Your task to perform on an android device: Open Chrome and go to settings Image 0: 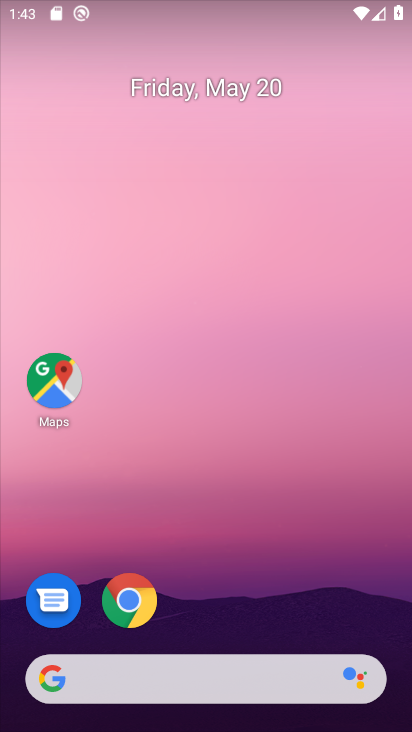
Step 0: click (146, 601)
Your task to perform on an android device: Open Chrome and go to settings Image 1: 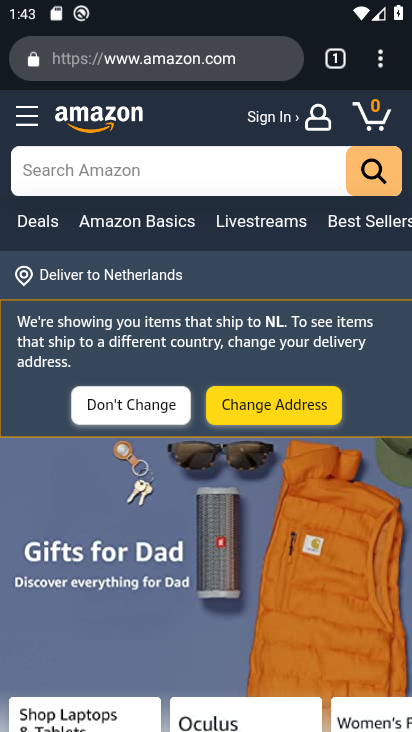
Step 1: click (374, 65)
Your task to perform on an android device: Open Chrome and go to settings Image 2: 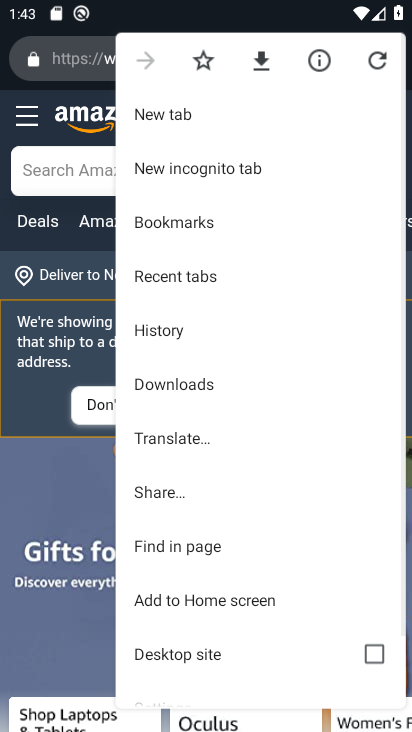
Step 2: drag from (208, 632) to (212, 374)
Your task to perform on an android device: Open Chrome and go to settings Image 3: 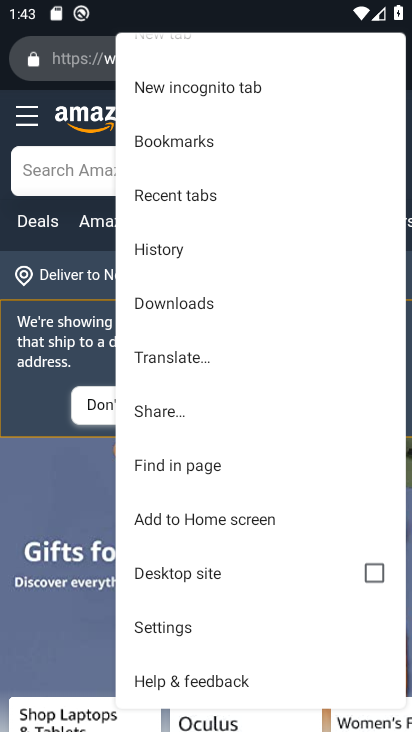
Step 3: click (181, 633)
Your task to perform on an android device: Open Chrome and go to settings Image 4: 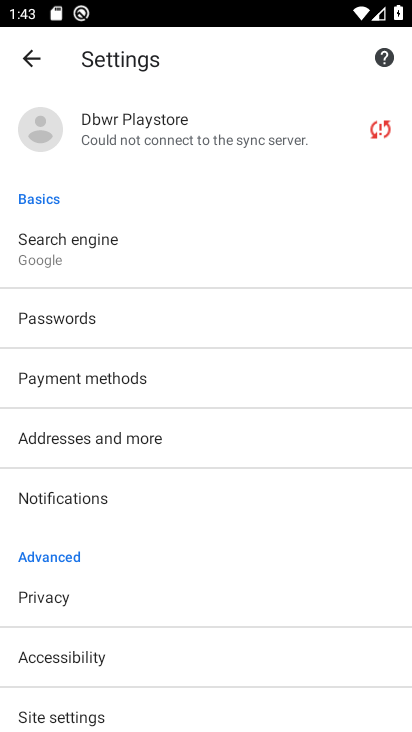
Step 4: task complete